Your task to perform on an android device: check battery use Image 0: 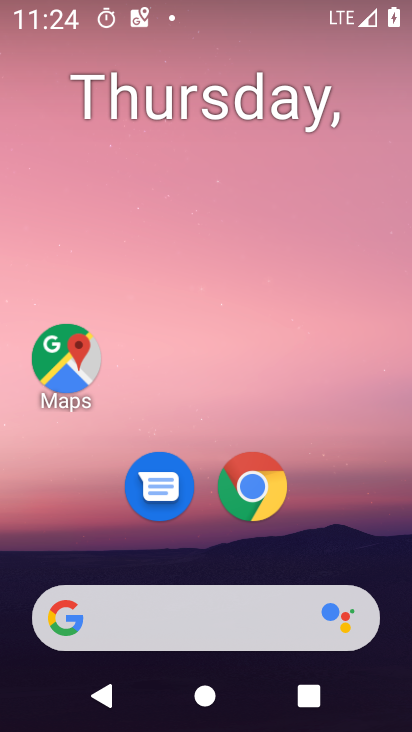
Step 0: drag from (198, 535) to (284, 60)
Your task to perform on an android device: check battery use Image 1: 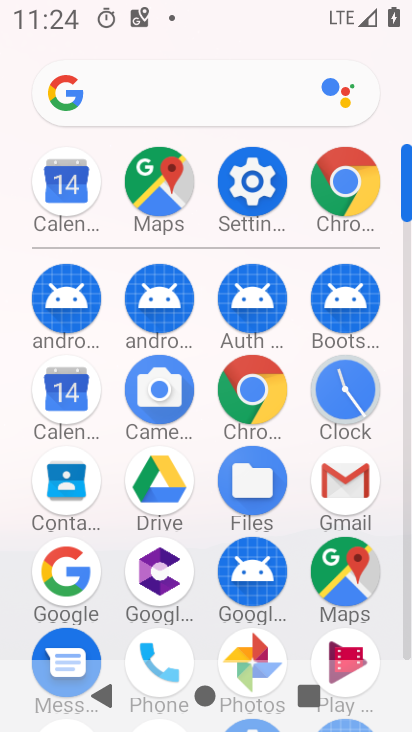
Step 1: click (263, 181)
Your task to perform on an android device: check battery use Image 2: 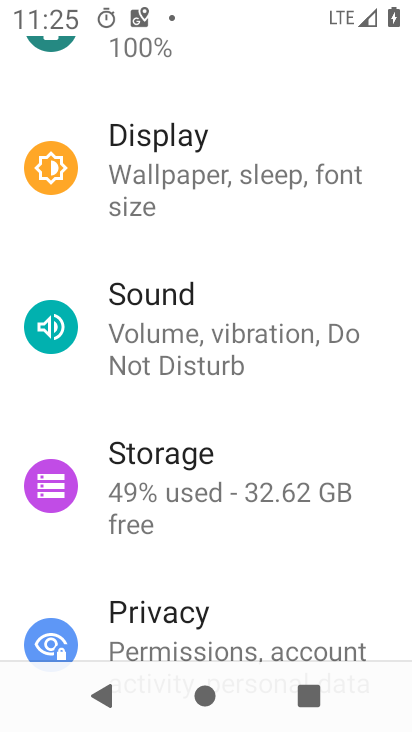
Step 2: drag from (194, 144) to (194, 682)
Your task to perform on an android device: check battery use Image 3: 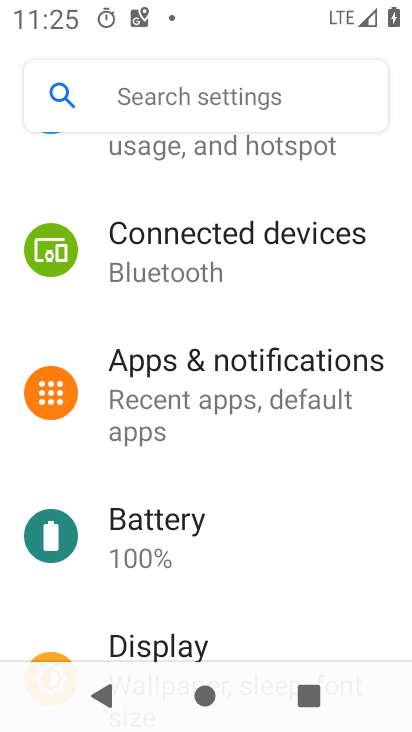
Step 3: click (180, 526)
Your task to perform on an android device: check battery use Image 4: 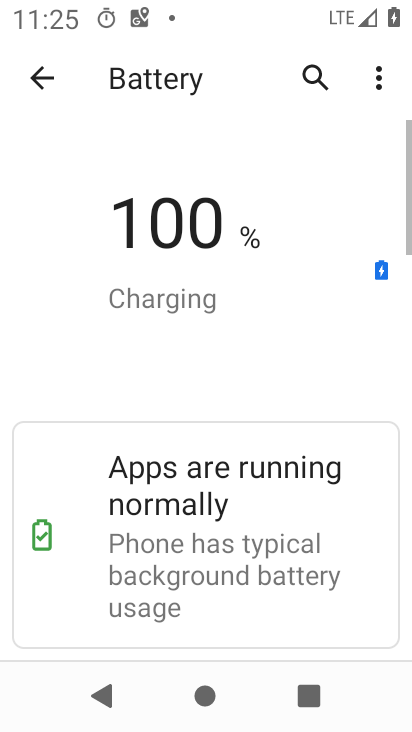
Step 4: click (379, 65)
Your task to perform on an android device: check battery use Image 5: 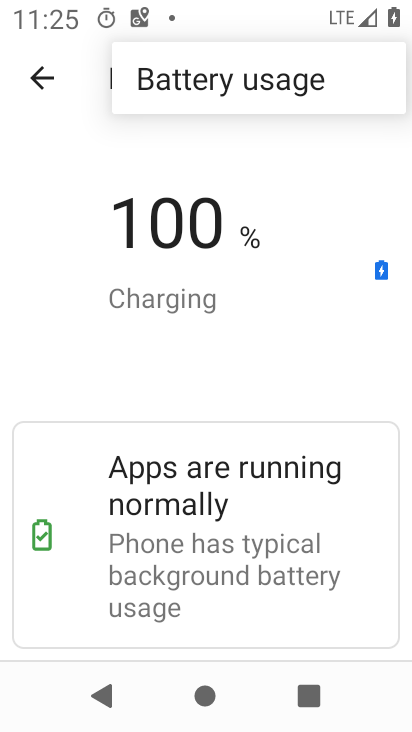
Step 5: click (299, 80)
Your task to perform on an android device: check battery use Image 6: 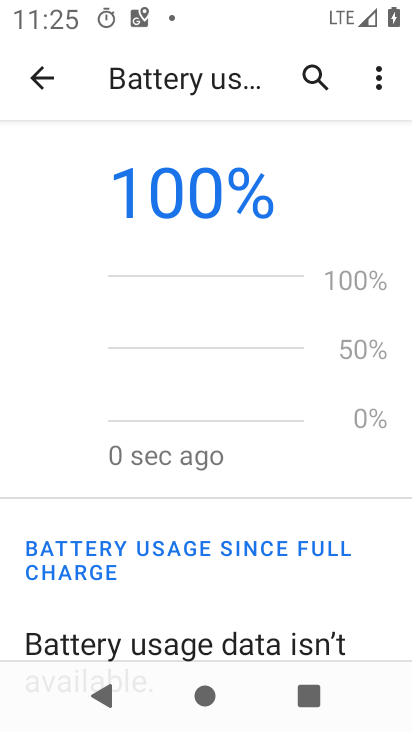
Step 6: task complete